Your task to perform on an android device: Go to Amazon Image 0: 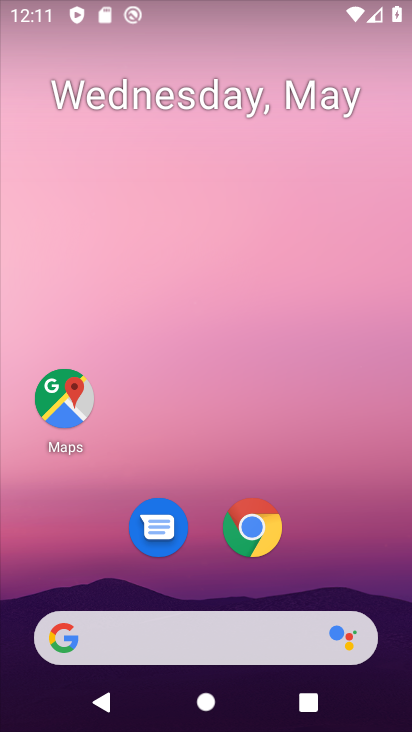
Step 0: click (268, 530)
Your task to perform on an android device: Go to Amazon Image 1: 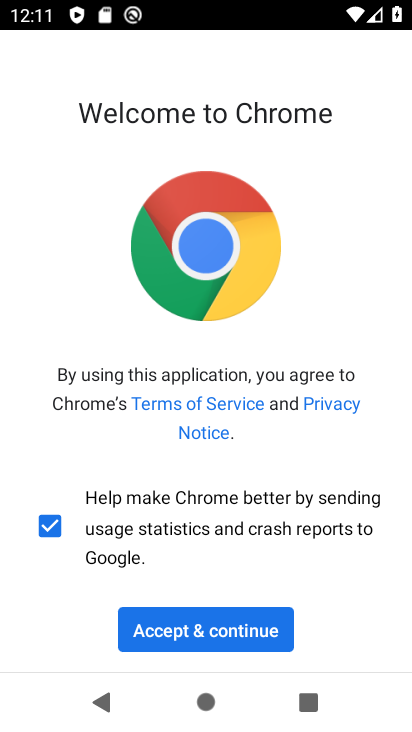
Step 1: click (257, 634)
Your task to perform on an android device: Go to Amazon Image 2: 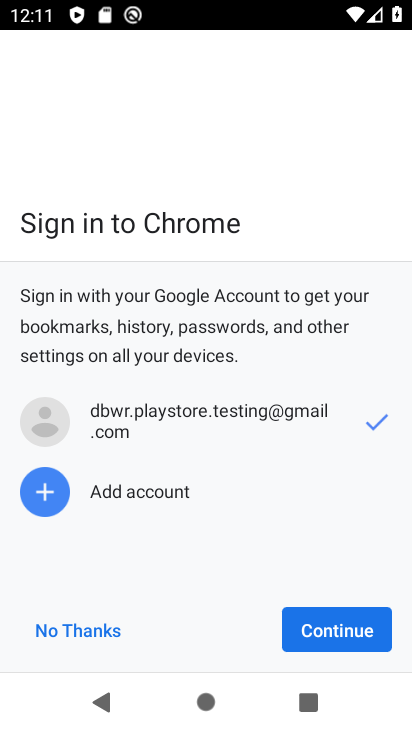
Step 2: click (323, 637)
Your task to perform on an android device: Go to Amazon Image 3: 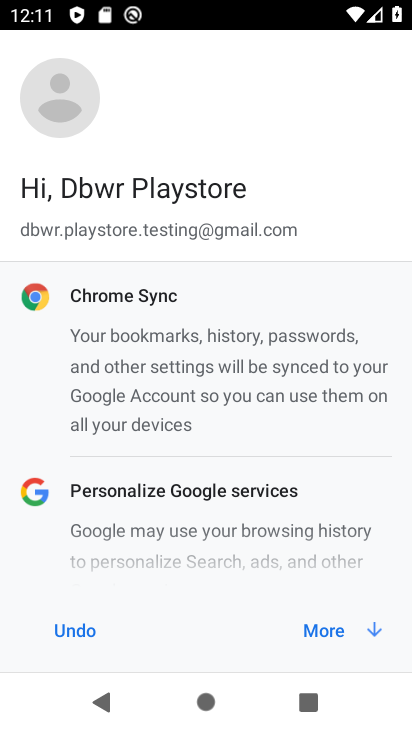
Step 3: click (323, 637)
Your task to perform on an android device: Go to Amazon Image 4: 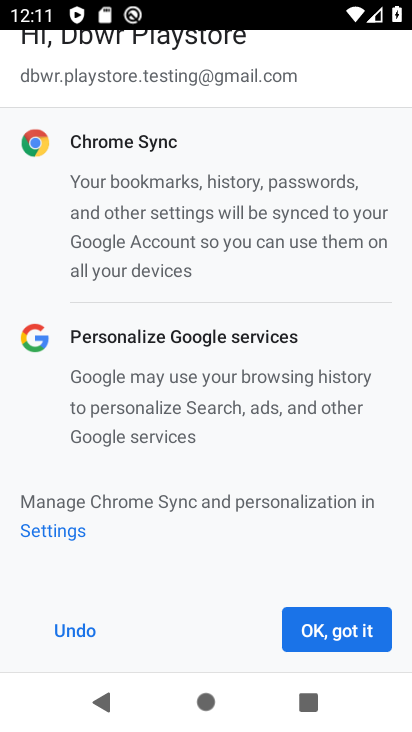
Step 4: click (323, 637)
Your task to perform on an android device: Go to Amazon Image 5: 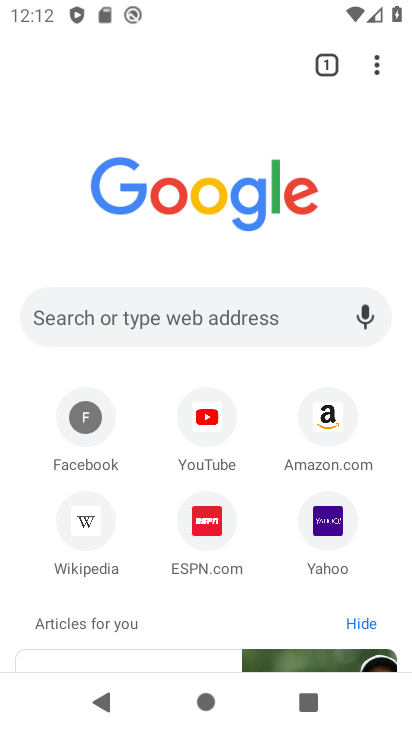
Step 5: click (324, 393)
Your task to perform on an android device: Go to Amazon Image 6: 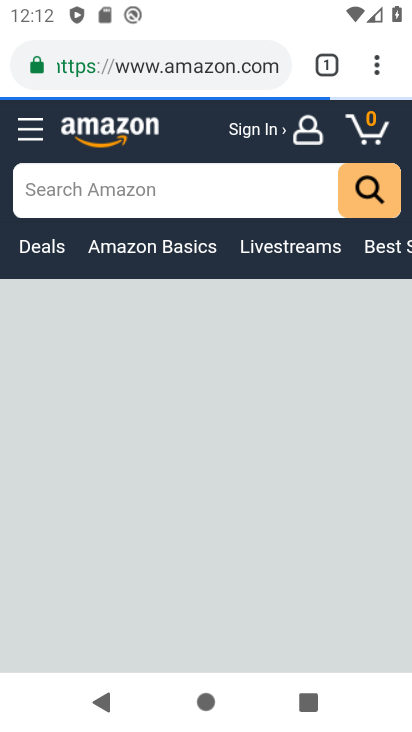
Step 6: task complete